Your task to perform on an android device: find snoozed emails in the gmail app Image 0: 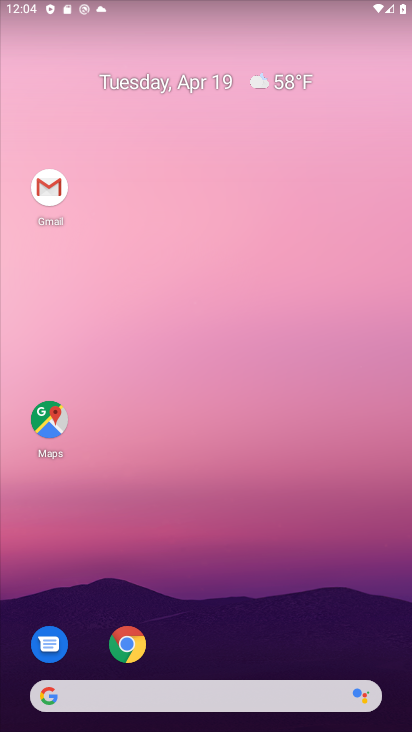
Step 0: click (40, 192)
Your task to perform on an android device: find snoozed emails in the gmail app Image 1: 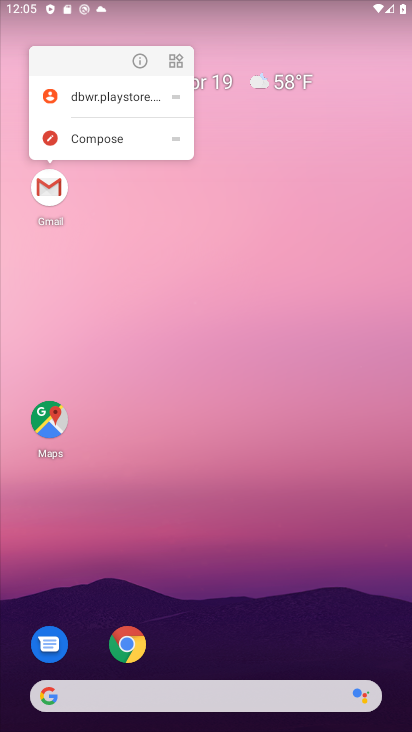
Step 1: click (58, 186)
Your task to perform on an android device: find snoozed emails in the gmail app Image 2: 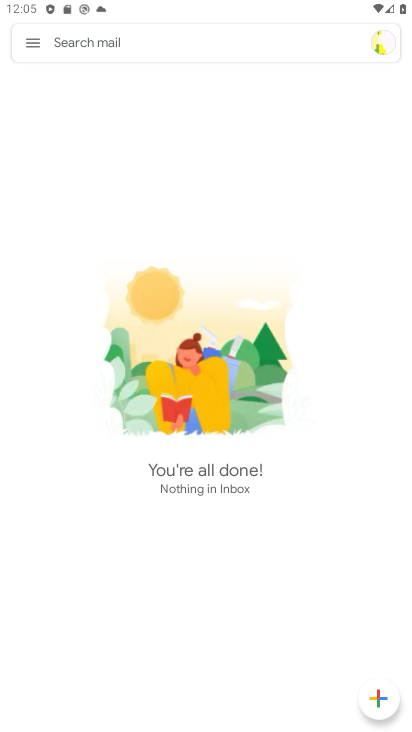
Step 2: press back button
Your task to perform on an android device: find snoozed emails in the gmail app Image 3: 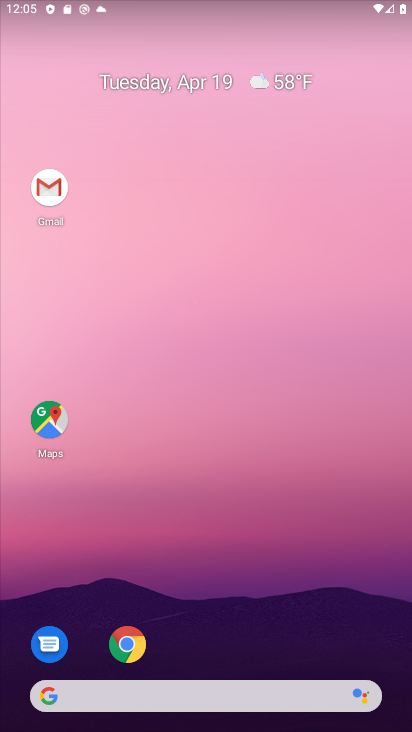
Step 3: click (45, 188)
Your task to perform on an android device: find snoozed emails in the gmail app Image 4: 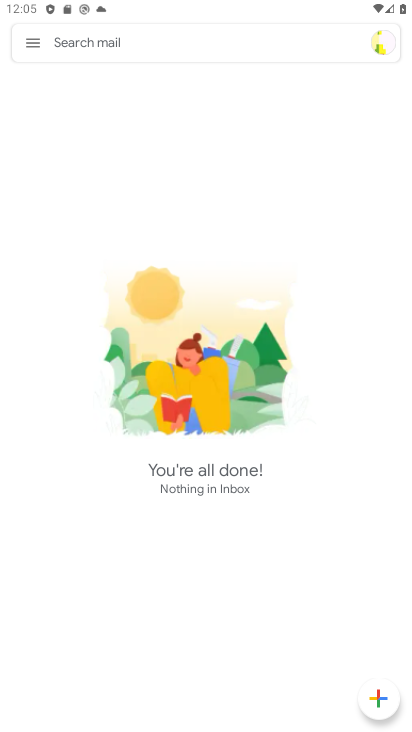
Step 4: click (37, 53)
Your task to perform on an android device: find snoozed emails in the gmail app Image 5: 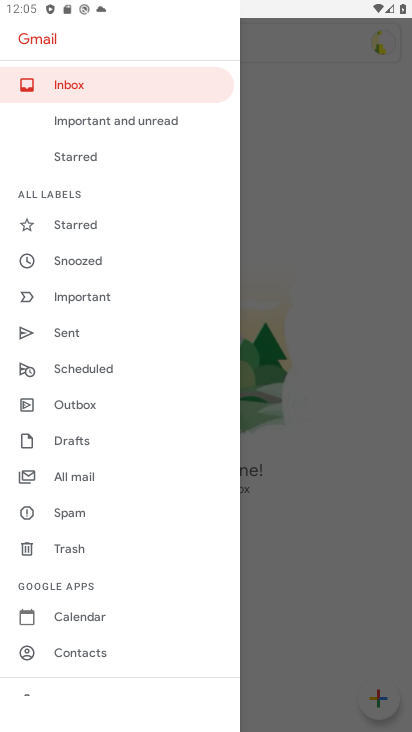
Step 5: click (100, 259)
Your task to perform on an android device: find snoozed emails in the gmail app Image 6: 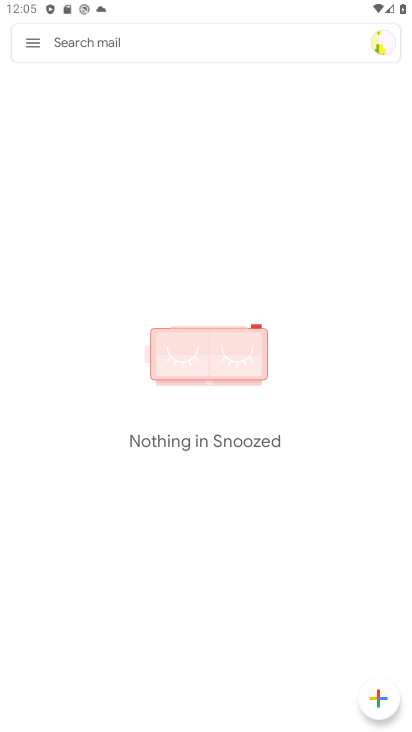
Step 6: task complete